Your task to perform on an android device: Show me productivity apps on the Play Store Image 0: 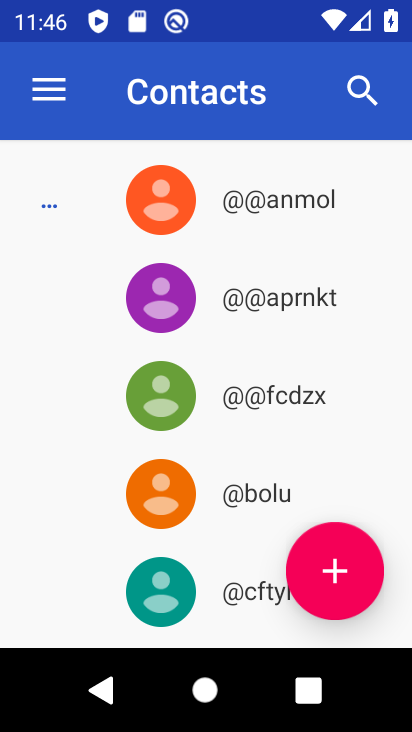
Step 0: press home button
Your task to perform on an android device: Show me productivity apps on the Play Store Image 1: 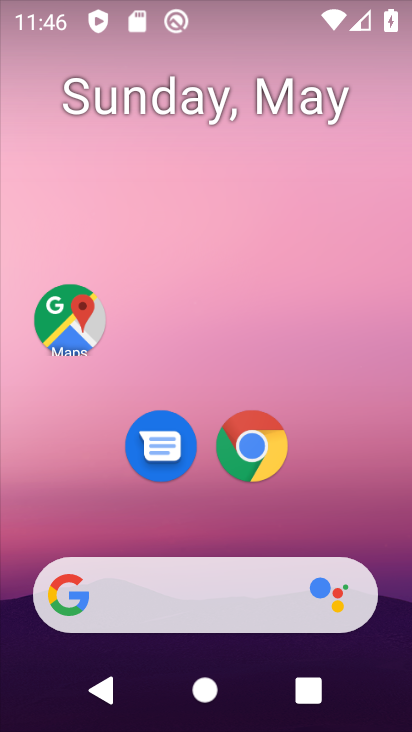
Step 1: drag from (397, 302) to (395, 204)
Your task to perform on an android device: Show me productivity apps on the Play Store Image 2: 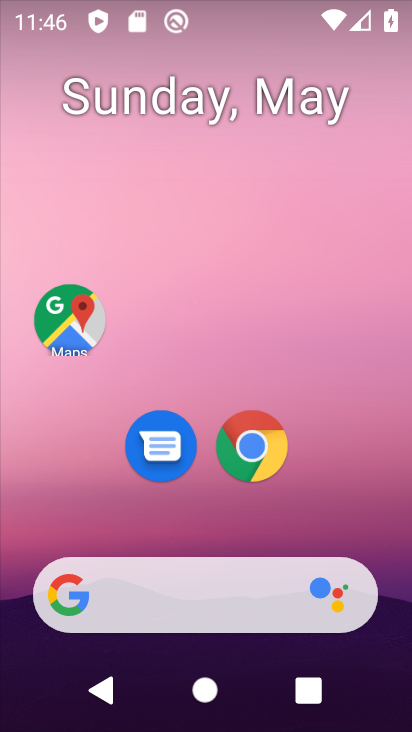
Step 2: drag from (250, 674) to (378, 32)
Your task to perform on an android device: Show me productivity apps on the Play Store Image 3: 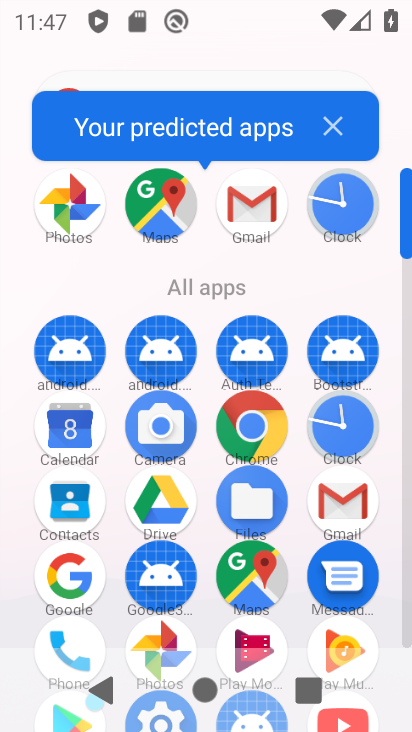
Step 3: drag from (191, 655) to (190, 381)
Your task to perform on an android device: Show me productivity apps on the Play Store Image 4: 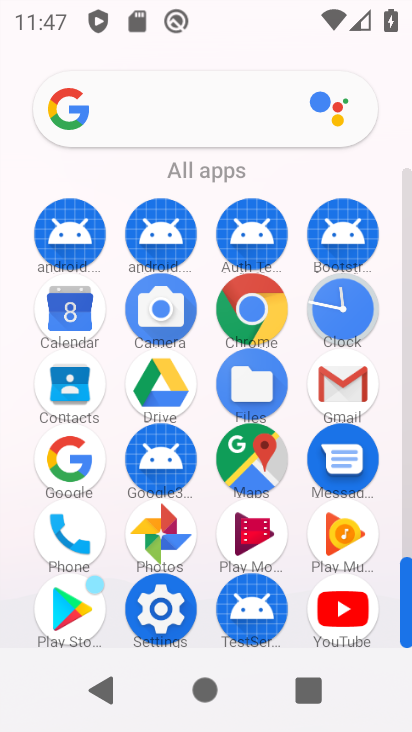
Step 4: click (58, 604)
Your task to perform on an android device: Show me productivity apps on the Play Store Image 5: 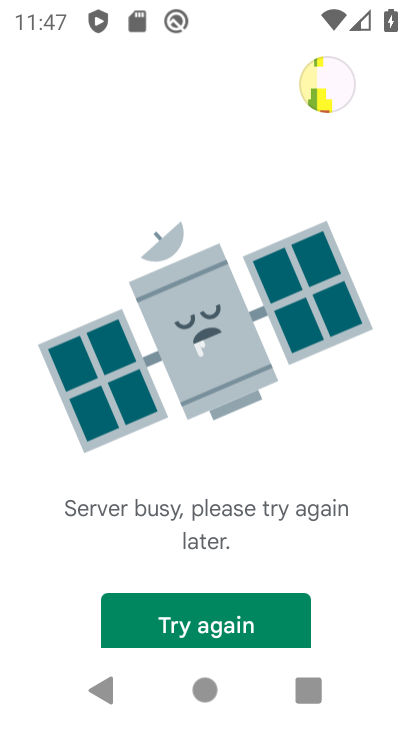
Step 5: click (258, 613)
Your task to perform on an android device: Show me productivity apps on the Play Store Image 6: 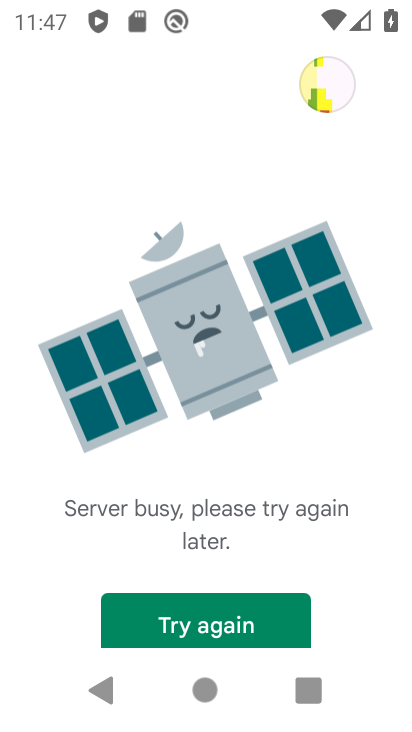
Step 6: click (258, 613)
Your task to perform on an android device: Show me productivity apps on the Play Store Image 7: 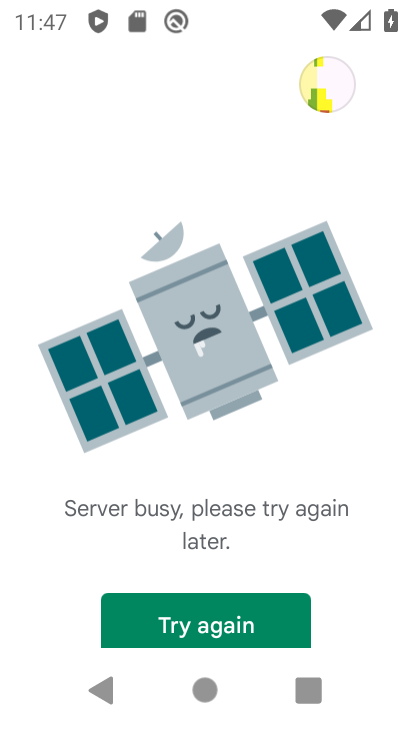
Step 7: click (258, 613)
Your task to perform on an android device: Show me productivity apps on the Play Store Image 8: 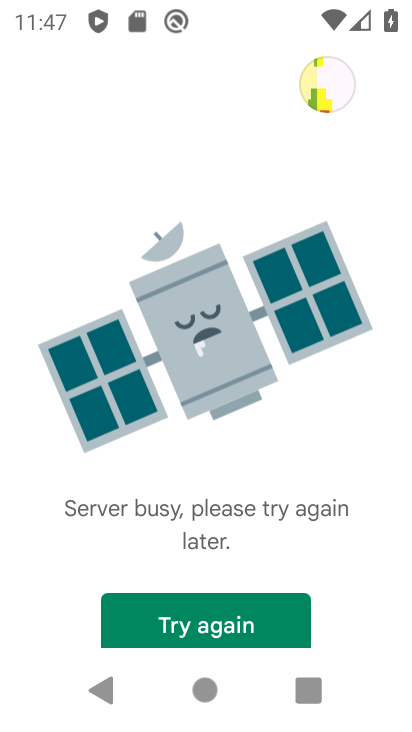
Step 8: click (259, 614)
Your task to perform on an android device: Show me productivity apps on the Play Store Image 9: 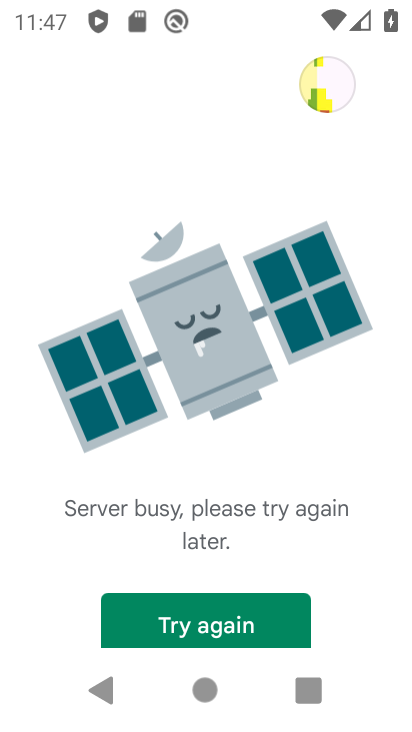
Step 9: click (261, 618)
Your task to perform on an android device: Show me productivity apps on the Play Store Image 10: 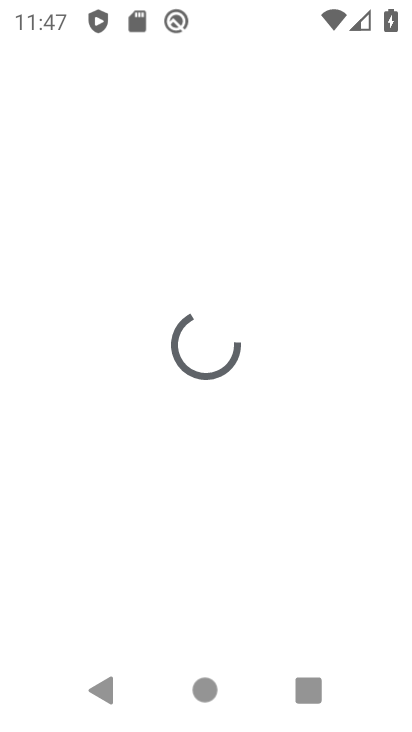
Step 10: click (261, 618)
Your task to perform on an android device: Show me productivity apps on the Play Store Image 11: 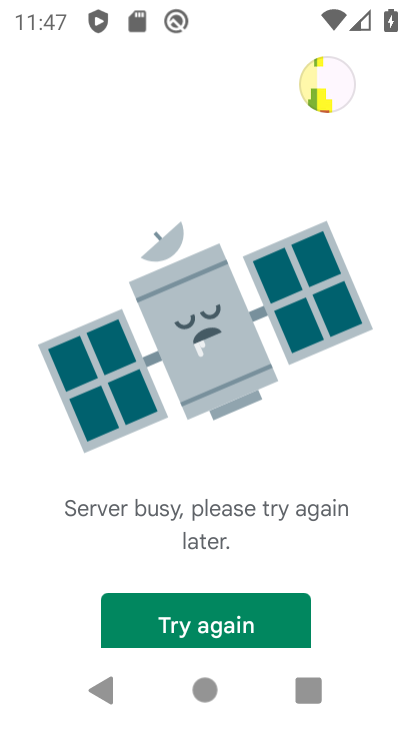
Step 11: task complete